Your task to perform on an android device: What is the news today? Image 0: 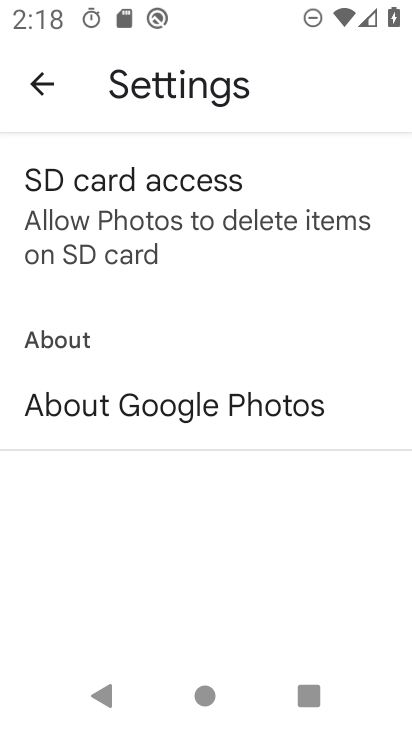
Step 0: press home button
Your task to perform on an android device: What is the news today? Image 1: 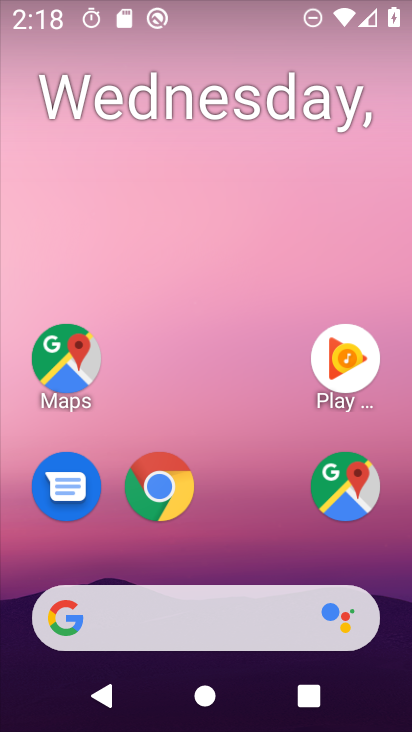
Step 1: task complete